Your task to perform on an android device: open sync settings in chrome Image 0: 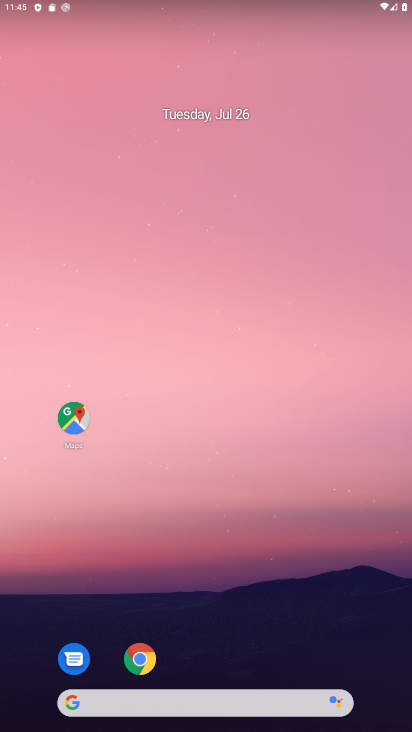
Step 0: drag from (288, 673) to (185, 216)
Your task to perform on an android device: open sync settings in chrome Image 1: 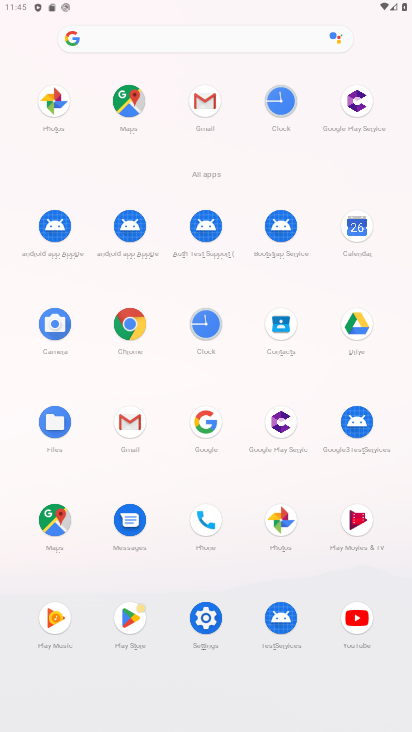
Step 1: click (201, 618)
Your task to perform on an android device: open sync settings in chrome Image 2: 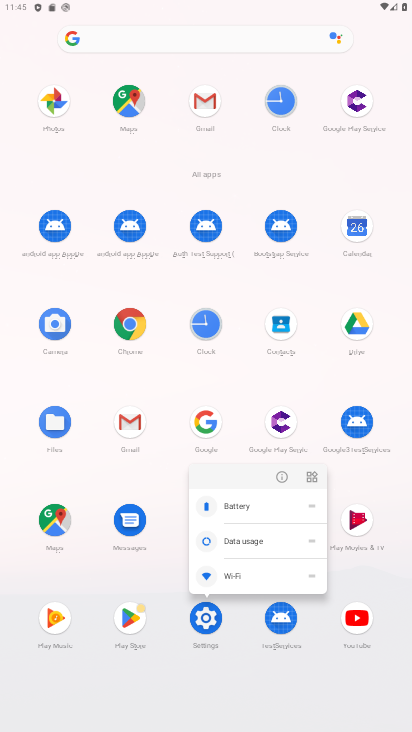
Step 2: click (120, 323)
Your task to perform on an android device: open sync settings in chrome Image 3: 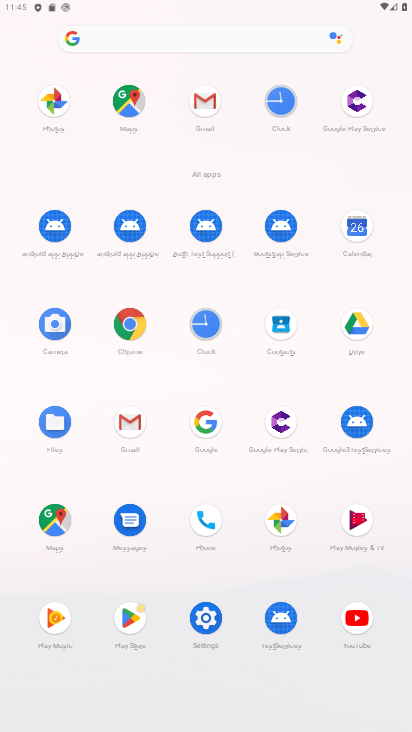
Step 3: click (125, 318)
Your task to perform on an android device: open sync settings in chrome Image 4: 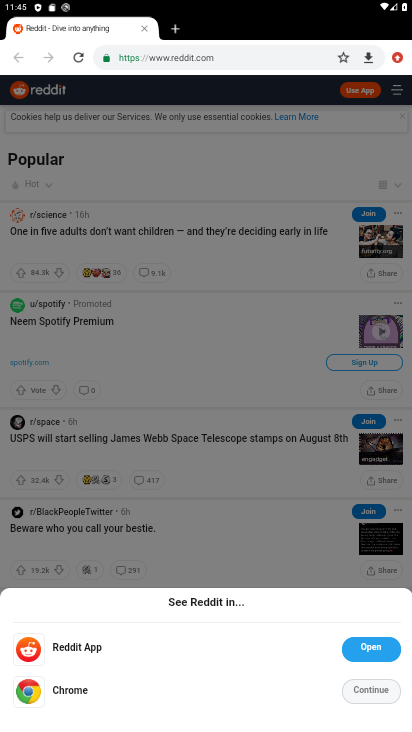
Step 4: task complete